Your task to perform on an android device: Open the web browser Image 0: 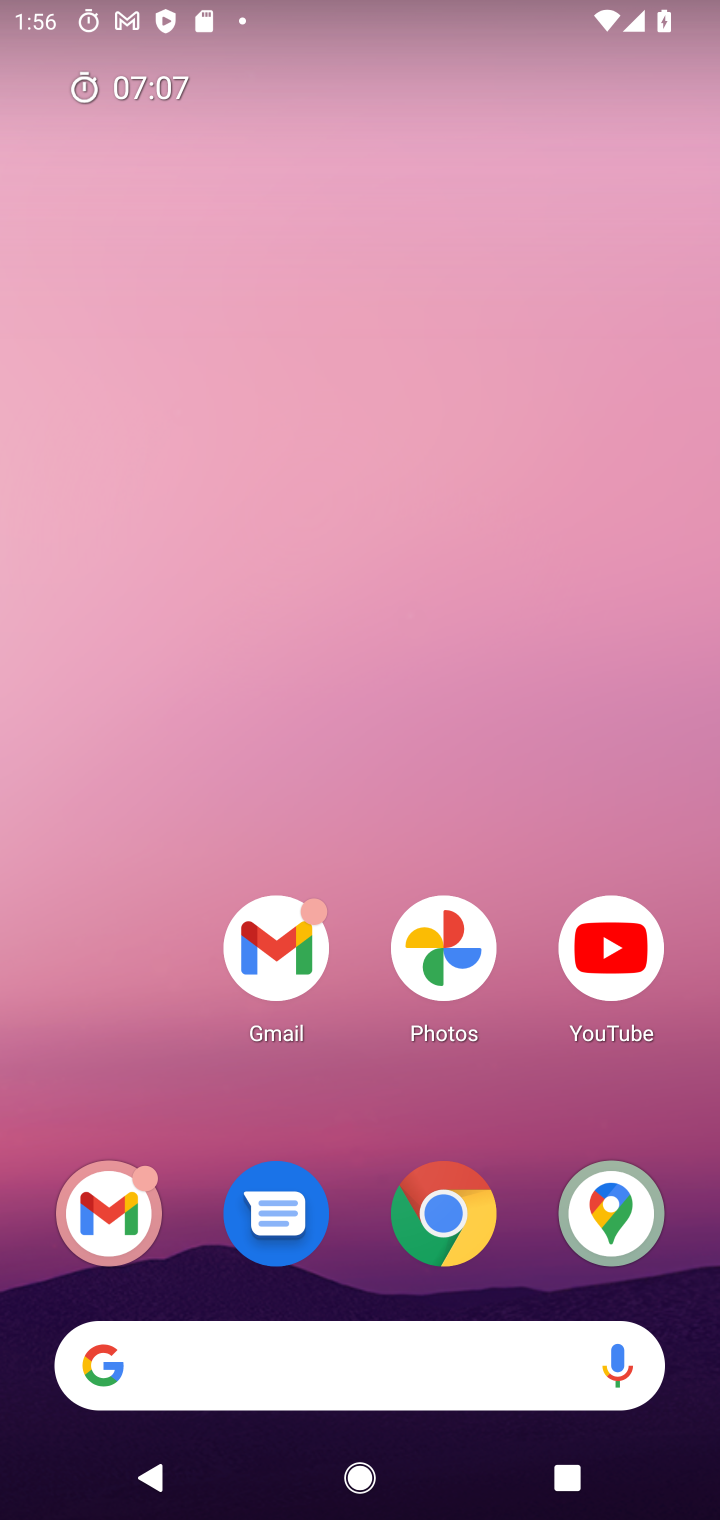
Step 0: drag from (419, 1417) to (676, 9)
Your task to perform on an android device: Open the web browser Image 1: 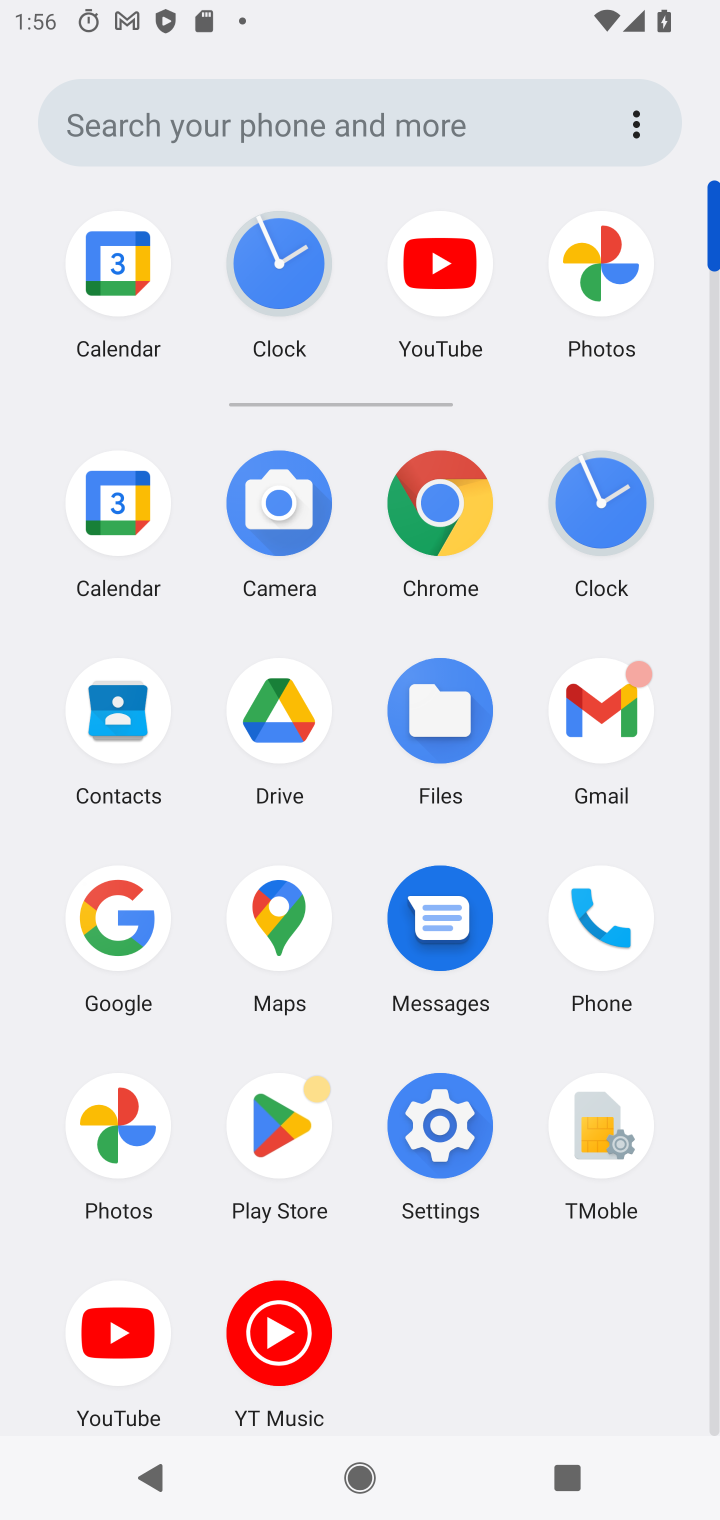
Step 1: click (455, 493)
Your task to perform on an android device: Open the web browser Image 2: 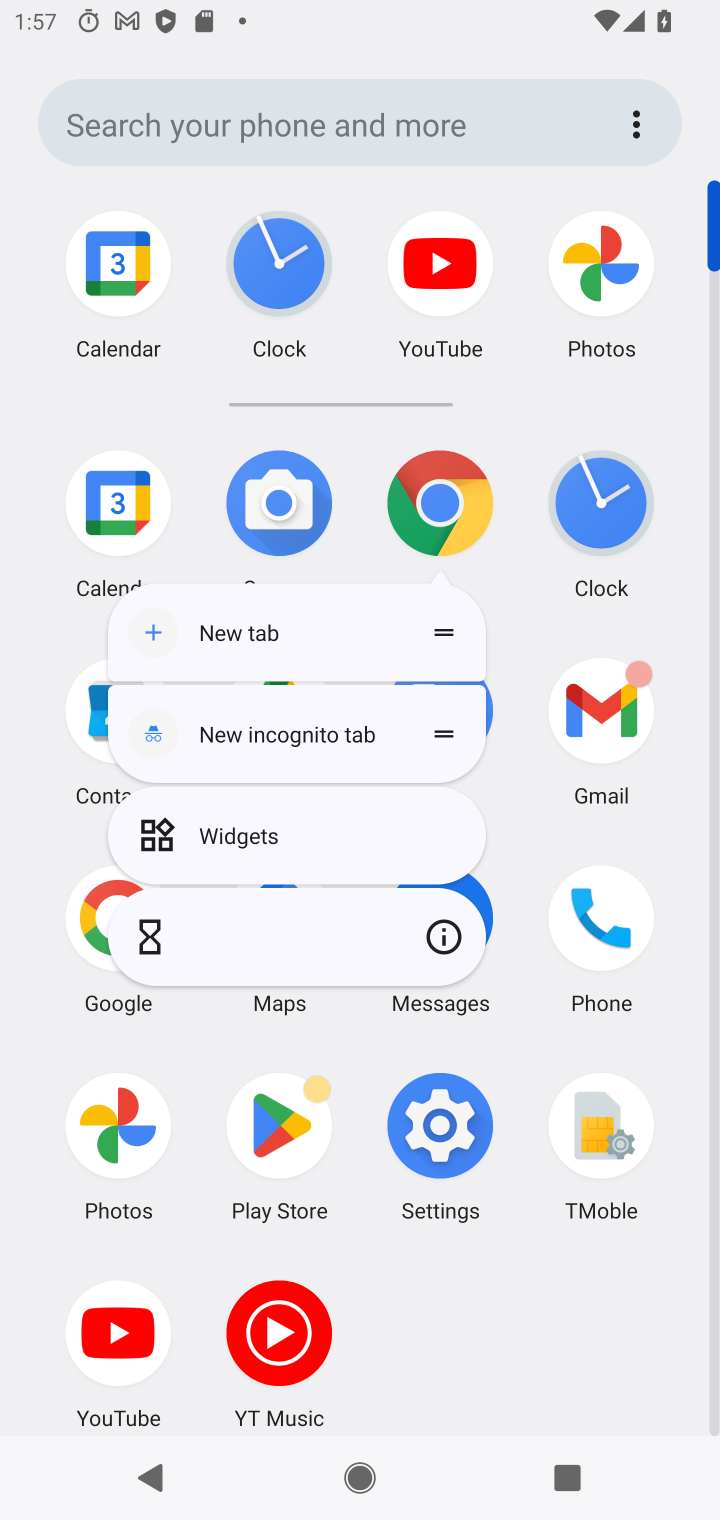
Step 2: click (454, 513)
Your task to perform on an android device: Open the web browser Image 3: 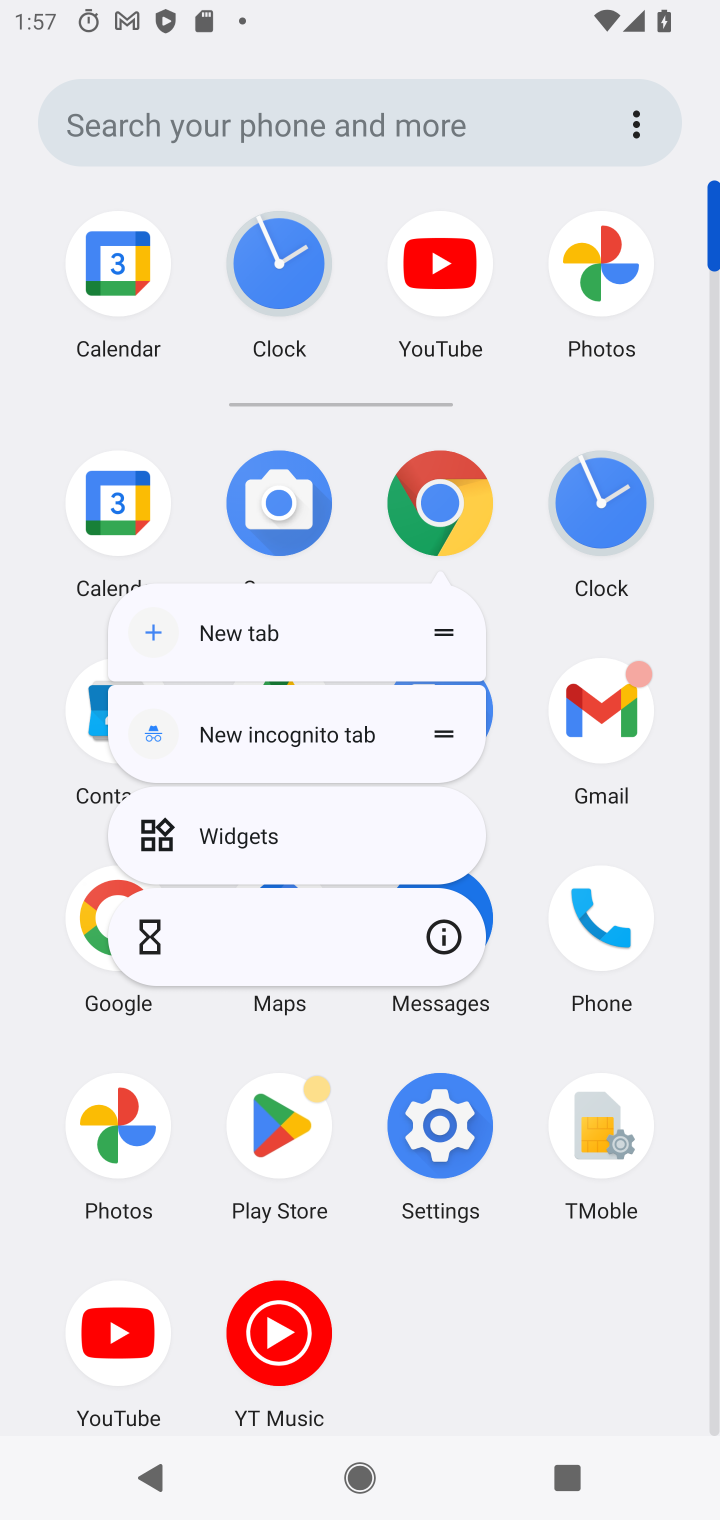
Step 3: click (454, 513)
Your task to perform on an android device: Open the web browser Image 4: 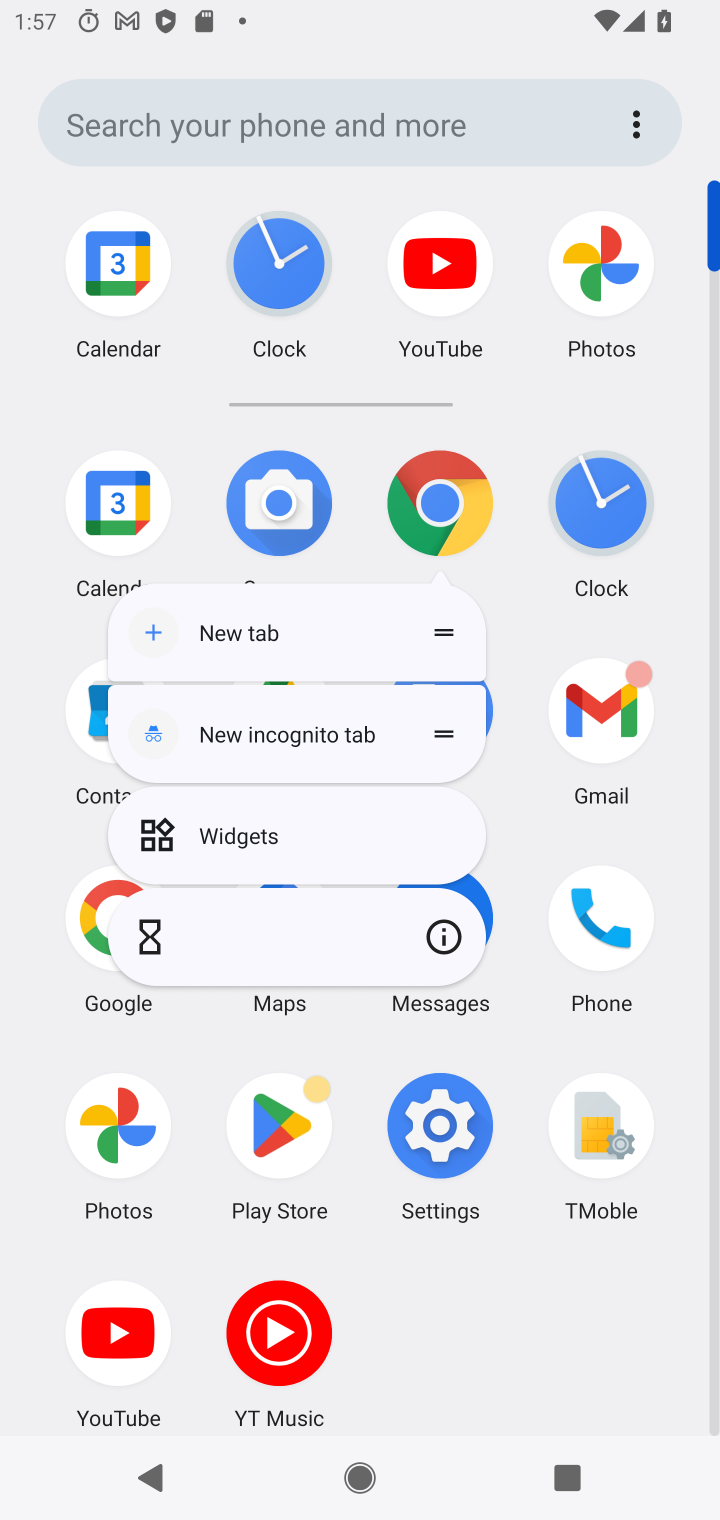
Step 4: click (454, 513)
Your task to perform on an android device: Open the web browser Image 5: 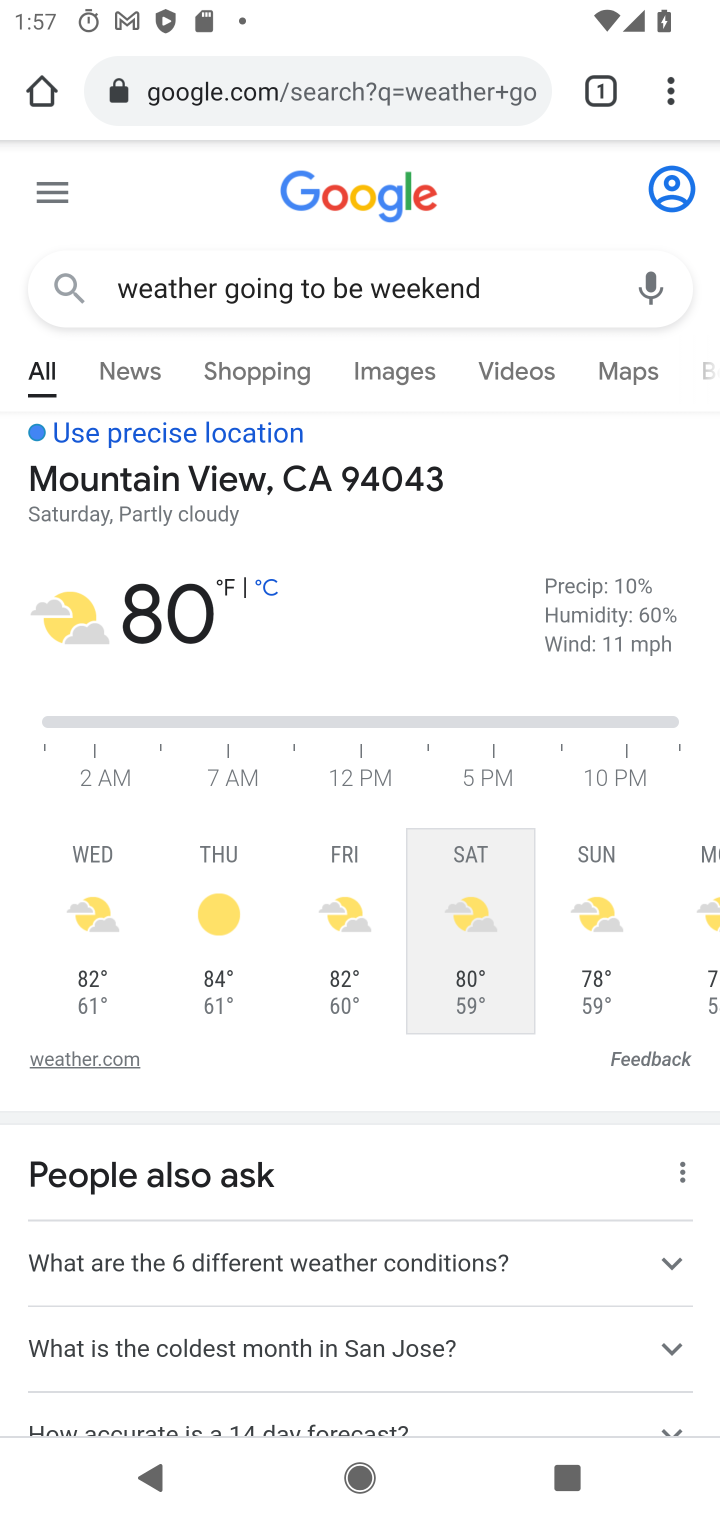
Step 5: task complete